Your task to perform on an android device: Is it going to rain today? Image 0: 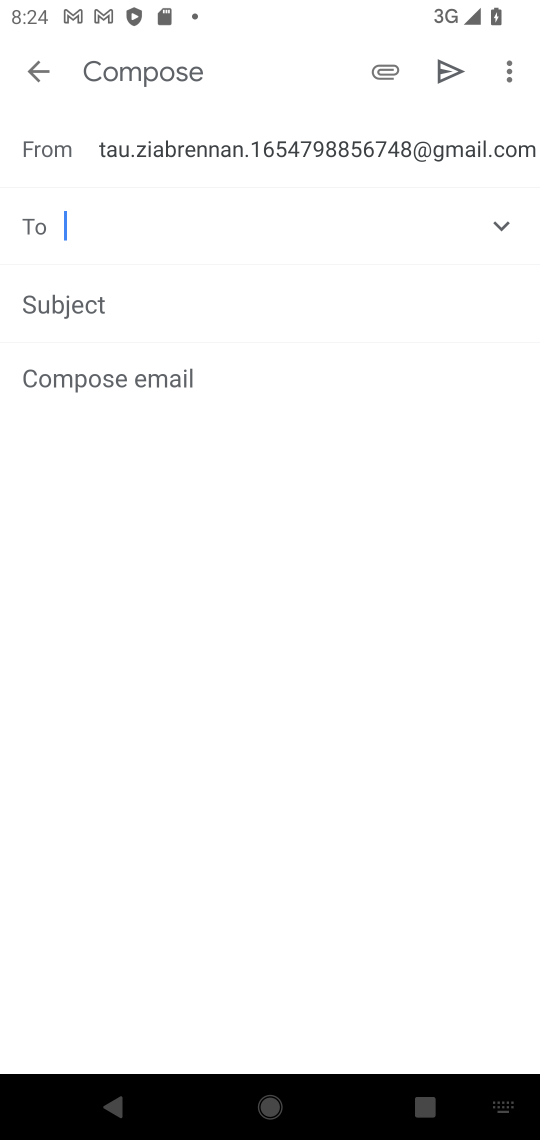
Step 0: press home button
Your task to perform on an android device: Is it going to rain today? Image 1: 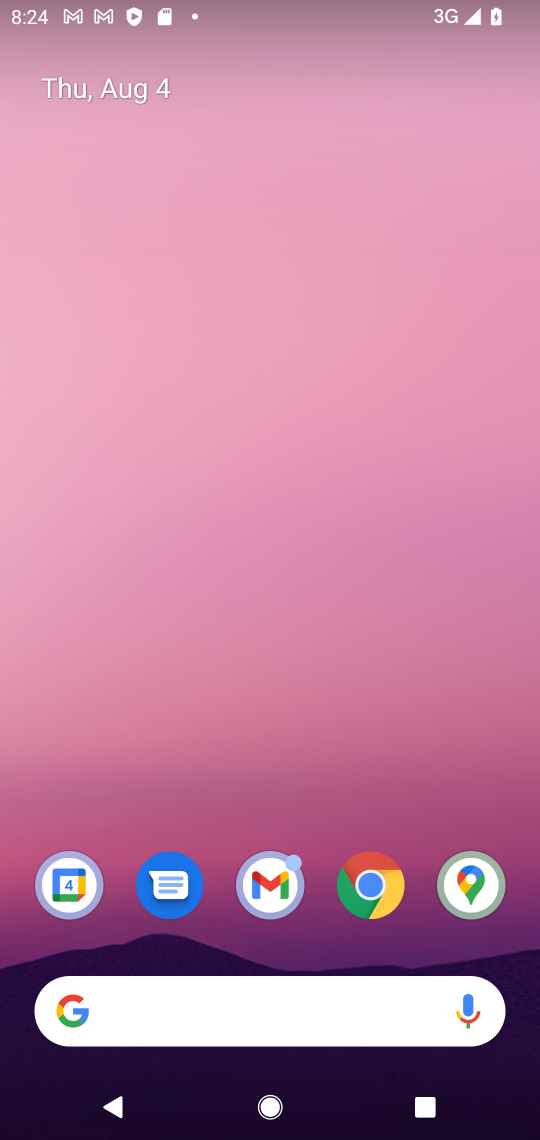
Step 1: click (379, 898)
Your task to perform on an android device: Is it going to rain today? Image 2: 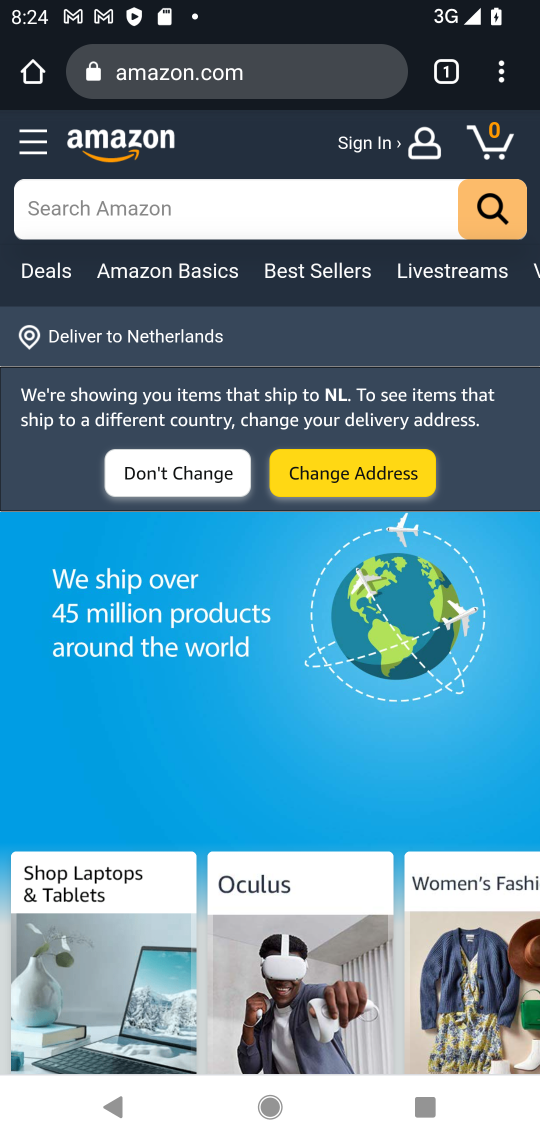
Step 2: click (325, 80)
Your task to perform on an android device: Is it going to rain today? Image 3: 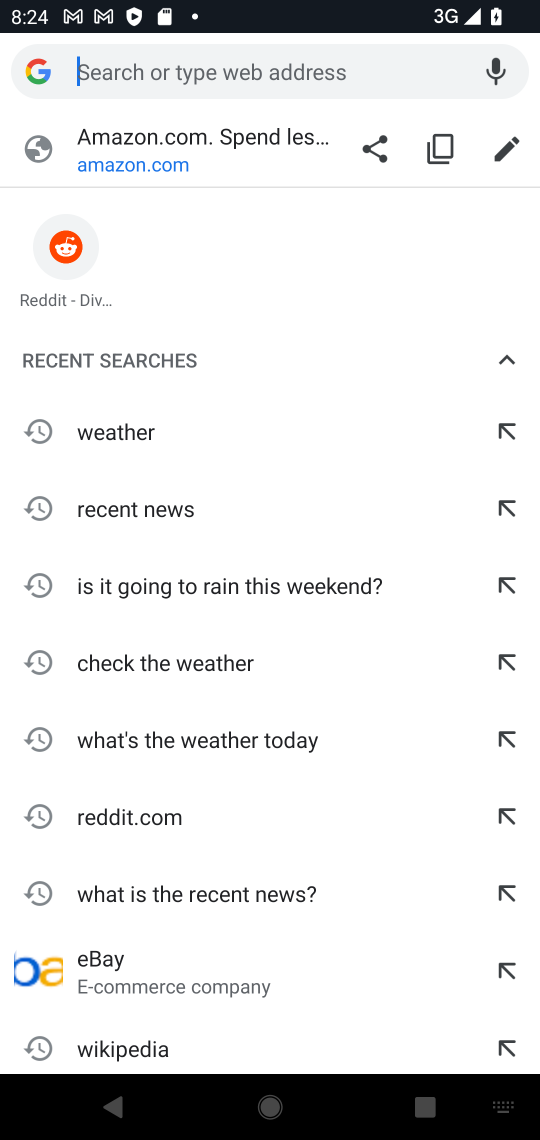
Step 3: type "Is it going to rain today?"
Your task to perform on an android device: Is it going to rain today? Image 4: 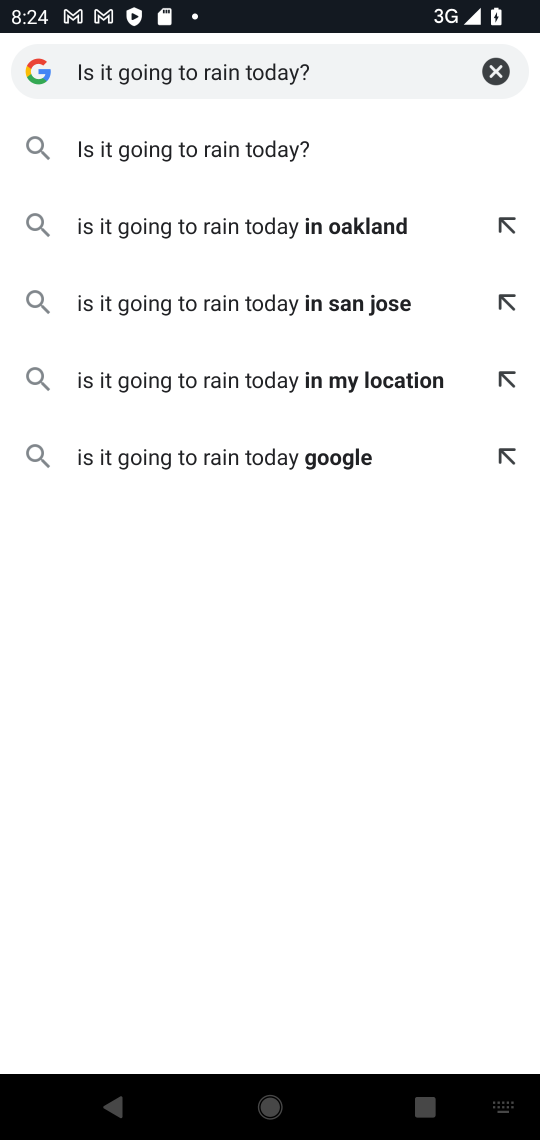
Step 4: click (82, 161)
Your task to perform on an android device: Is it going to rain today? Image 5: 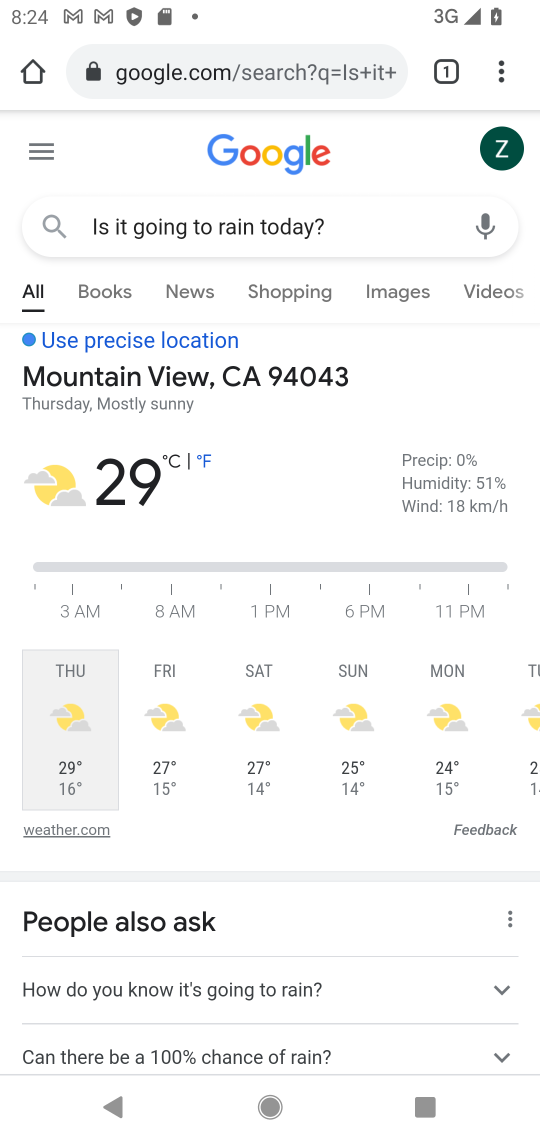
Step 5: click (135, 170)
Your task to perform on an android device: Is it going to rain today? Image 6: 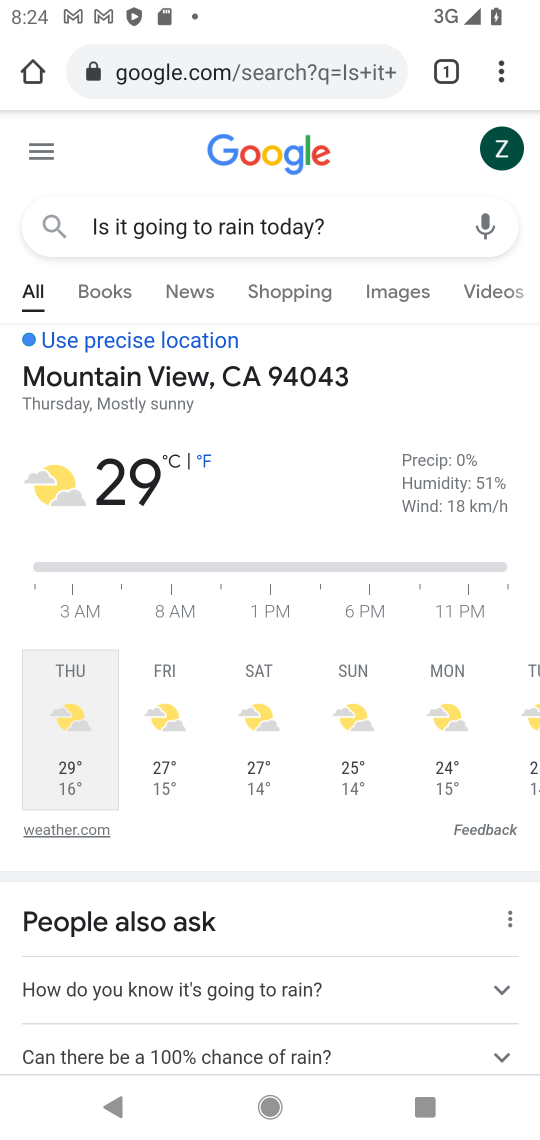
Step 6: task complete